Your task to perform on an android device: find which apps use the phone's location Image 0: 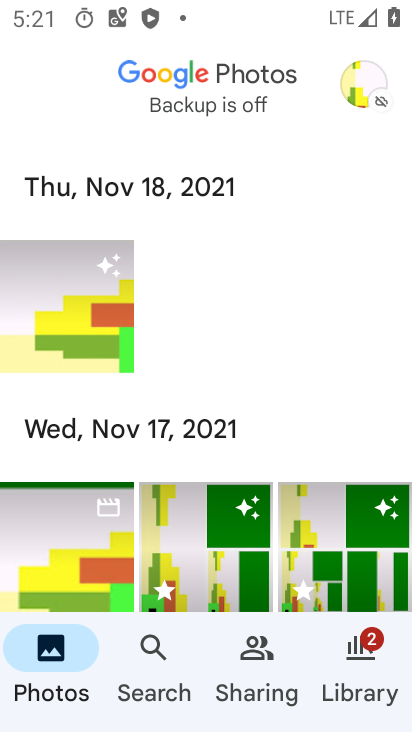
Step 0: press home button
Your task to perform on an android device: find which apps use the phone's location Image 1: 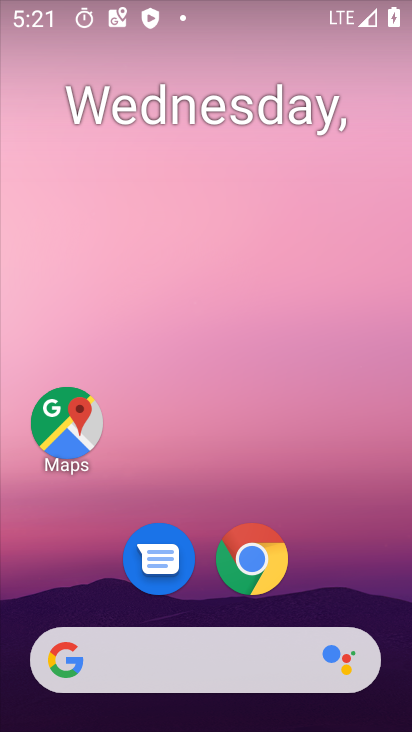
Step 1: drag from (329, 500) to (261, 84)
Your task to perform on an android device: find which apps use the phone's location Image 2: 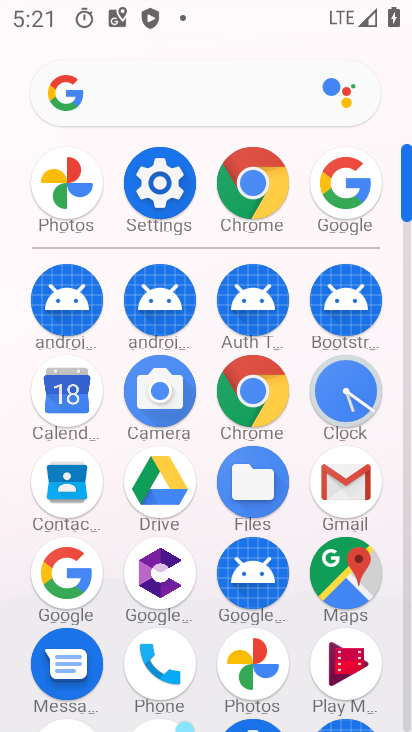
Step 2: click (157, 195)
Your task to perform on an android device: find which apps use the phone's location Image 3: 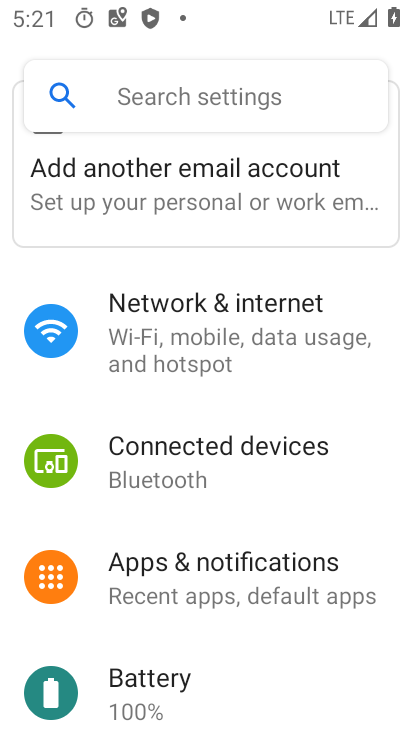
Step 3: drag from (264, 642) to (268, 103)
Your task to perform on an android device: find which apps use the phone's location Image 4: 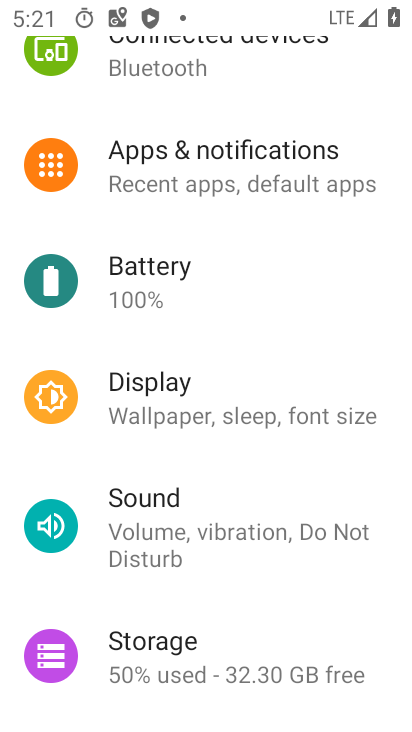
Step 4: drag from (251, 499) to (235, 195)
Your task to perform on an android device: find which apps use the phone's location Image 5: 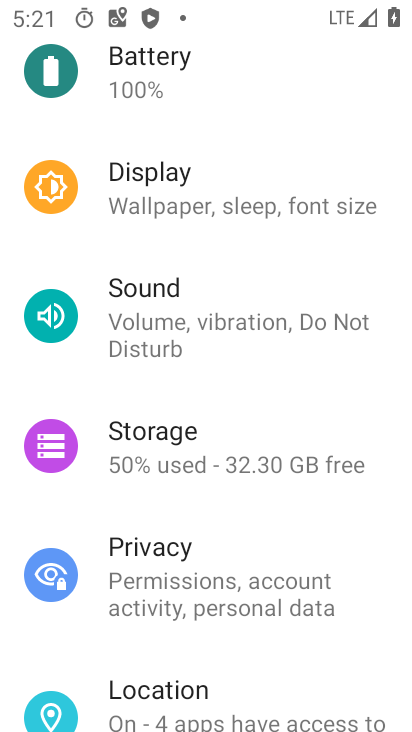
Step 5: click (213, 697)
Your task to perform on an android device: find which apps use the phone's location Image 6: 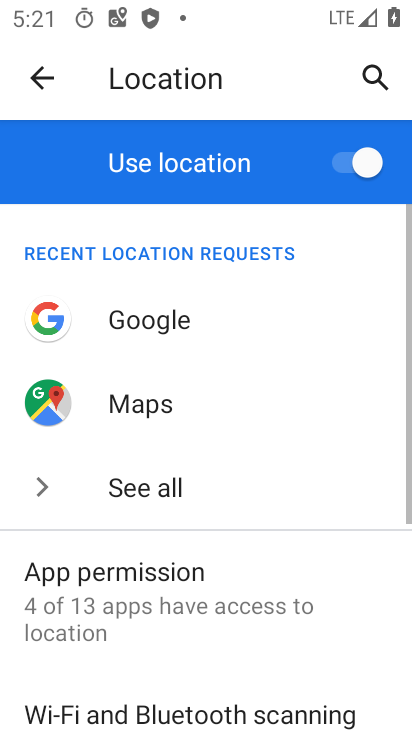
Step 6: click (216, 600)
Your task to perform on an android device: find which apps use the phone's location Image 7: 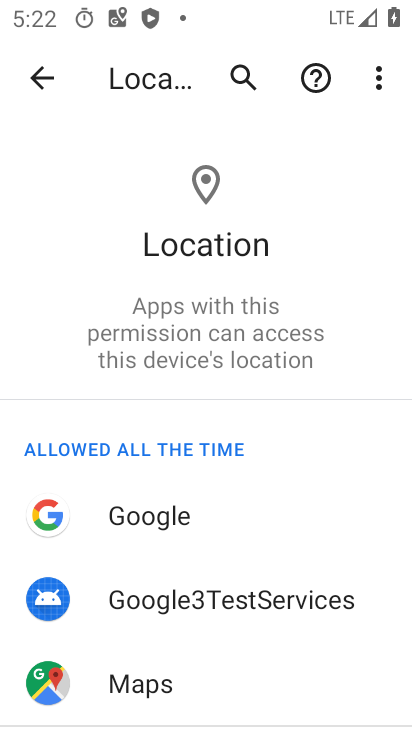
Step 7: task complete